Your task to perform on an android device: What is the recent news? Image 0: 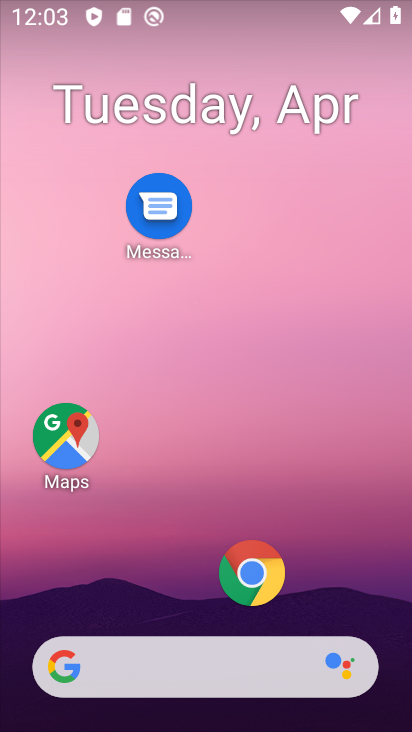
Step 0: drag from (35, 280) to (403, 342)
Your task to perform on an android device: What is the recent news? Image 1: 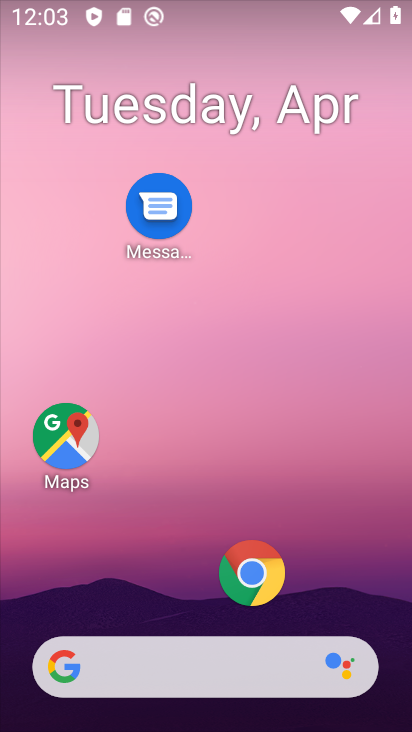
Step 1: task complete